Your task to perform on an android device: add a contact in the contacts app Image 0: 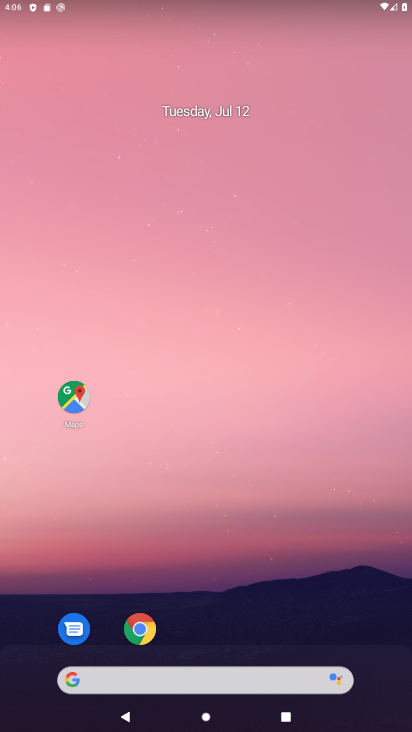
Step 0: drag from (281, 561) to (253, 4)
Your task to perform on an android device: add a contact in the contacts app Image 1: 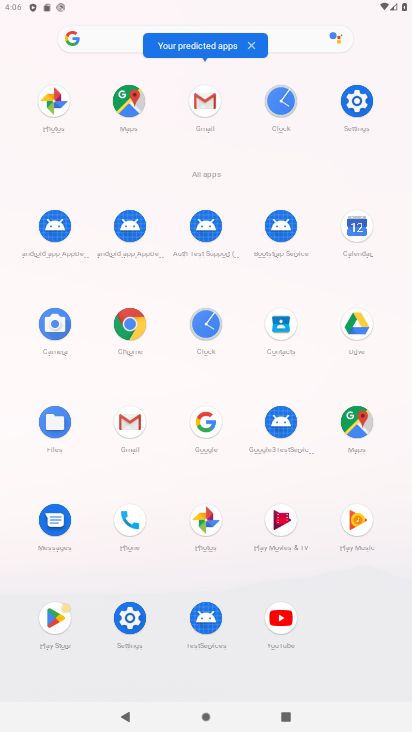
Step 1: click (283, 323)
Your task to perform on an android device: add a contact in the contacts app Image 2: 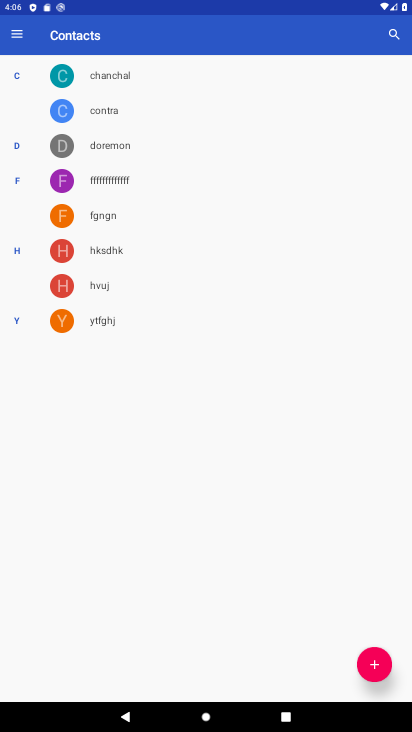
Step 2: click (376, 663)
Your task to perform on an android device: add a contact in the contacts app Image 3: 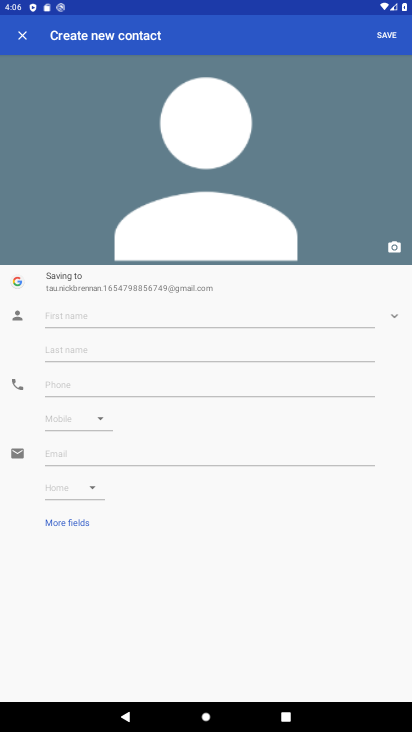
Step 3: click (178, 316)
Your task to perform on an android device: add a contact in the contacts app Image 4: 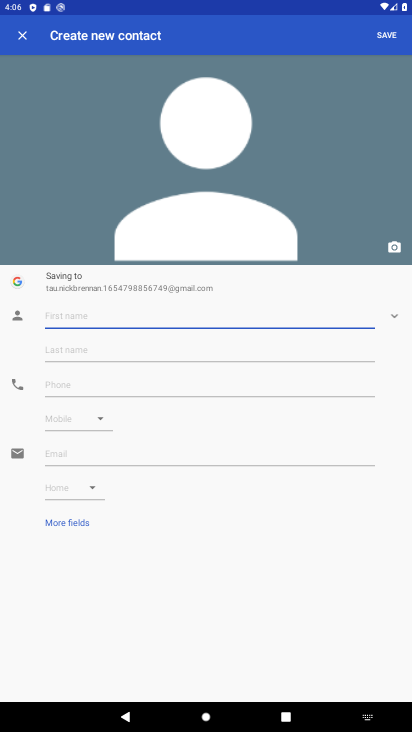
Step 4: type "smartiyvan"
Your task to perform on an android device: add a contact in the contacts app Image 5: 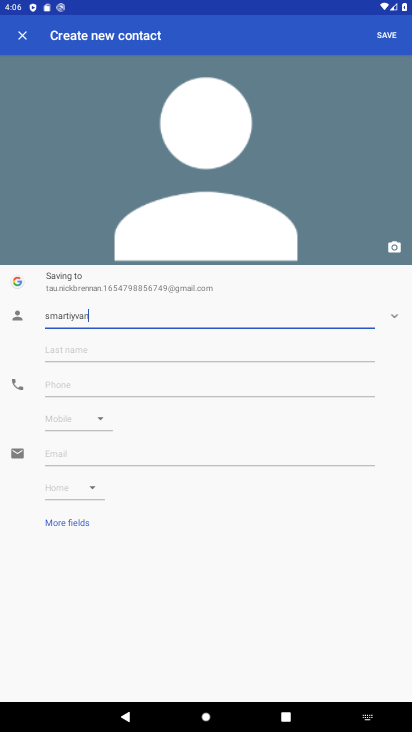
Step 5: click (391, 33)
Your task to perform on an android device: add a contact in the contacts app Image 6: 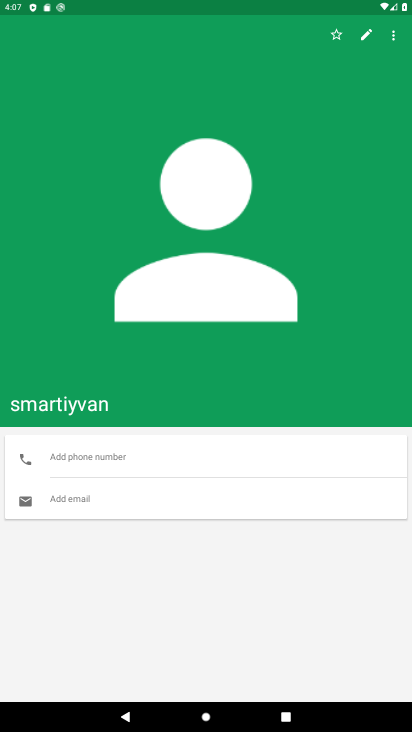
Step 6: task complete